Your task to perform on an android device: Open my contact list Image 0: 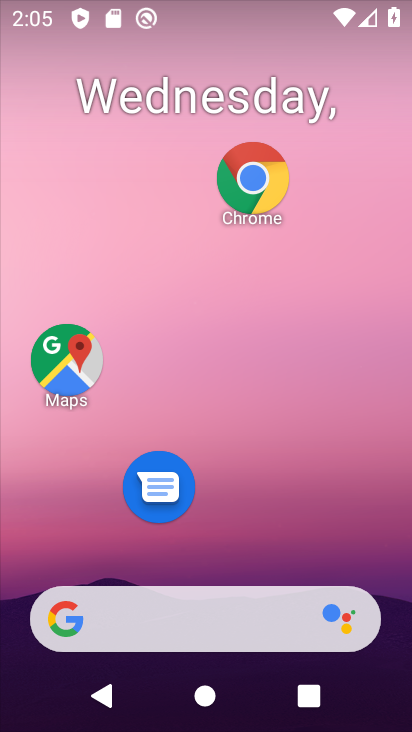
Step 0: drag from (264, 504) to (317, 13)
Your task to perform on an android device: Open my contact list Image 1: 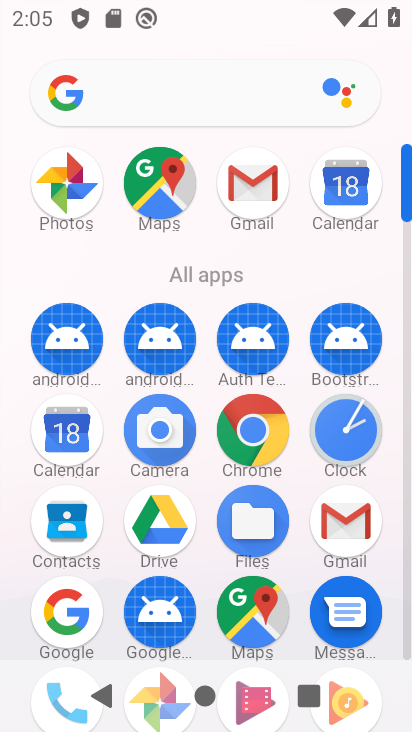
Step 1: click (71, 534)
Your task to perform on an android device: Open my contact list Image 2: 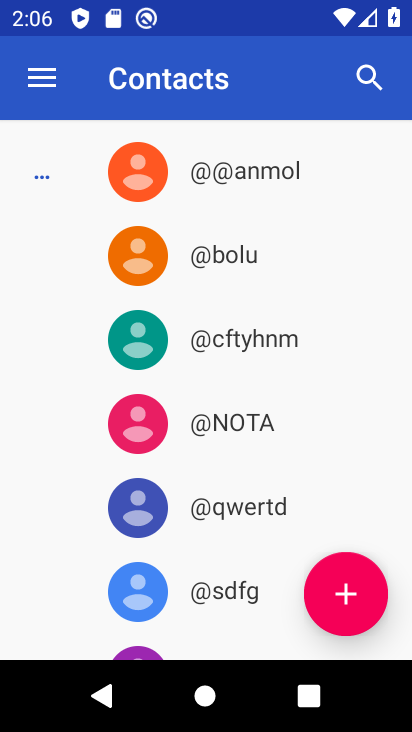
Step 2: task complete